Your task to perform on an android device: turn on bluetooth scan Image 0: 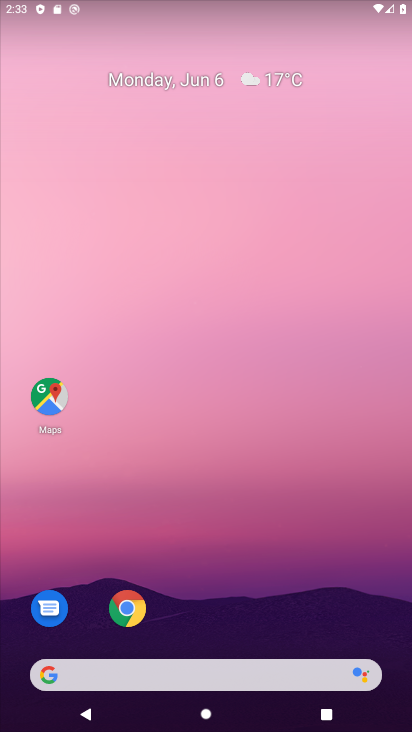
Step 0: drag from (257, 624) to (229, 5)
Your task to perform on an android device: turn on bluetooth scan Image 1: 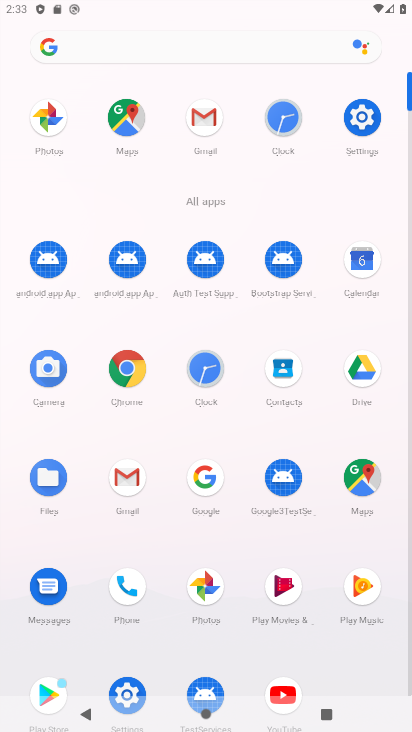
Step 1: click (362, 115)
Your task to perform on an android device: turn on bluetooth scan Image 2: 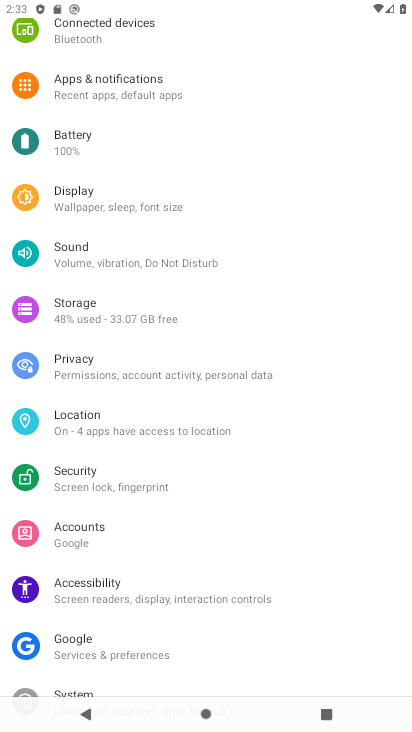
Step 2: click (59, 437)
Your task to perform on an android device: turn on bluetooth scan Image 3: 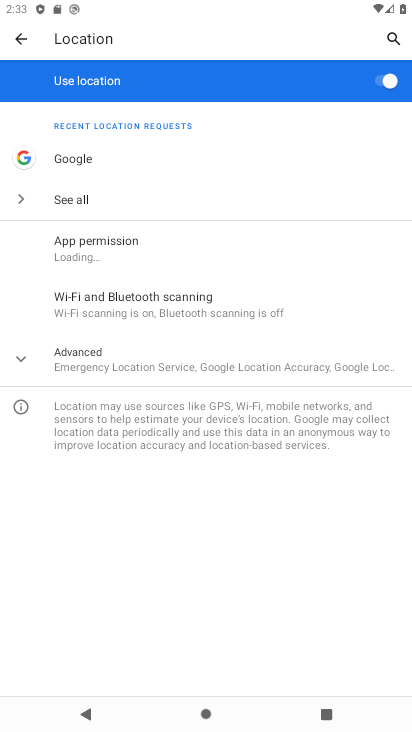
Step 3: click (229, 363)
Your task to perform on an android device: turn on bluetooth scan Image 4: 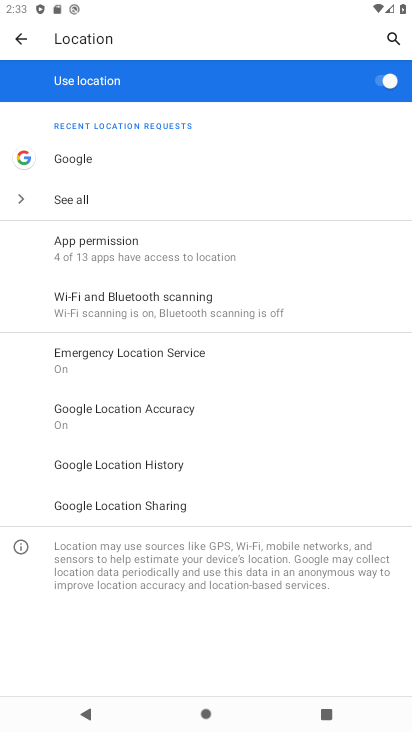
Step 4: click (218, 311)
Your task to perform on an android device: turn on bluetooth scan Image 5: 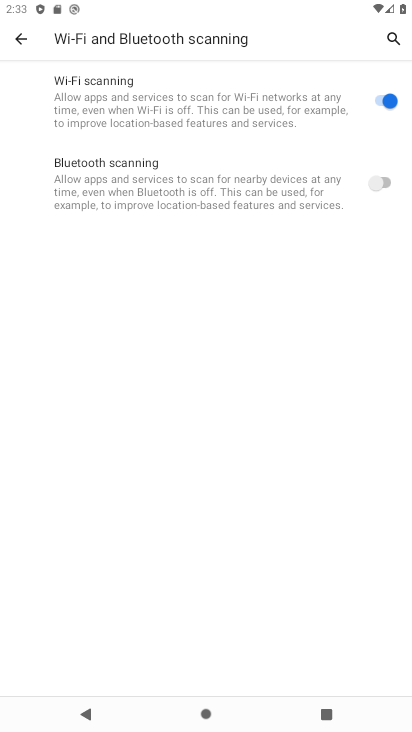
Step 5: click (375, 175)
Your task to perform on an android device: turn on bluetooth scan Image 6: 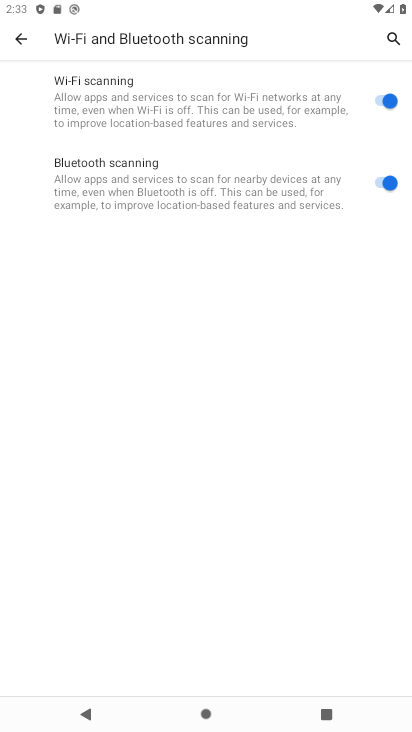
Step 6: task complete